Your task to perform on an android device: check google app version Image 0: 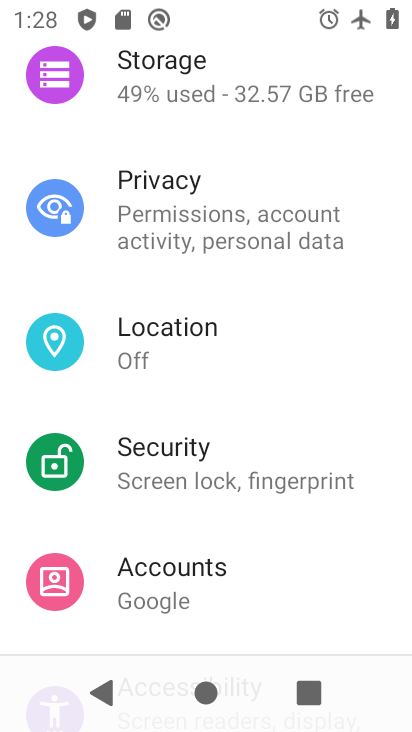
Step 0: press home button
Your task to perform on an android device: check google app version Image 1: 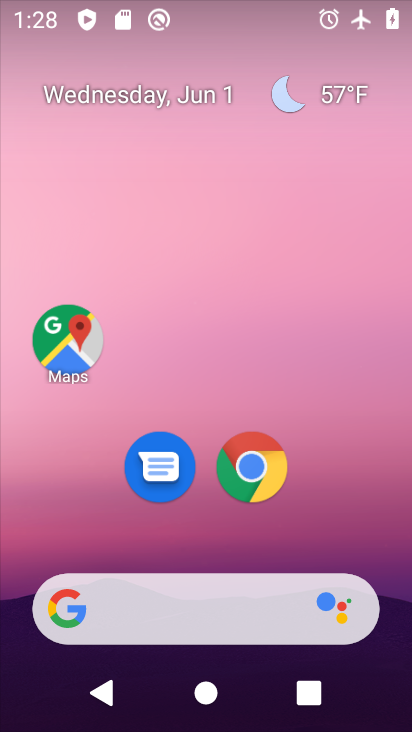
Step 1: drag from (376, 523) to (386, 137)
Your task to perform on an android device: check google app version Image 2: 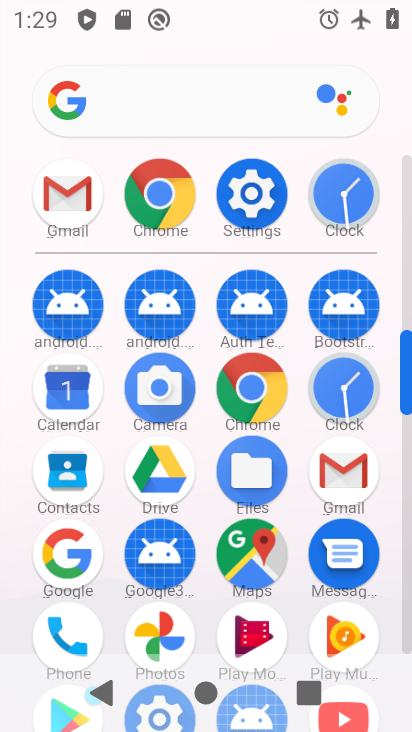
Step 2: click (65, 568)
Your task to perform on an android device: check google app version Image 3: 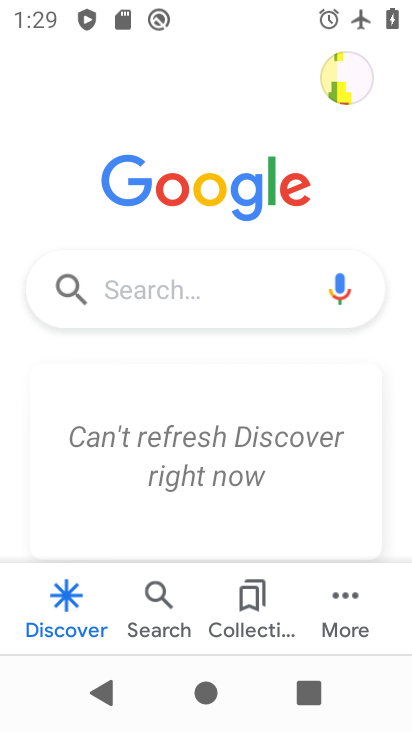
Step 3: click (336, 613)
Your task to perform on an android device: check google app version Image 4: 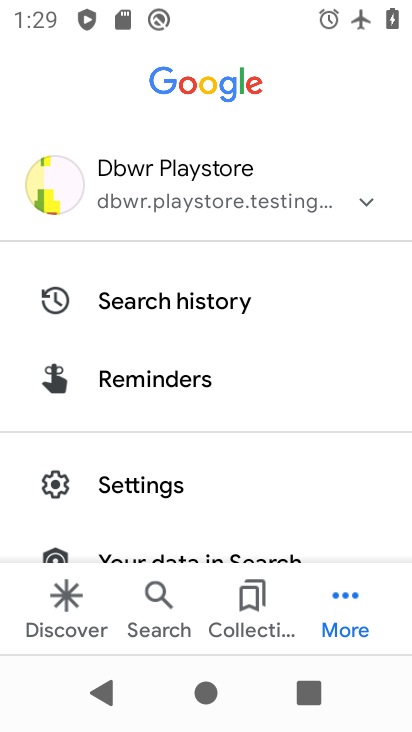
Step 4: drag from (311, 453) to (317, 239)
Your task to perform on an android device: check google app version Image 5: 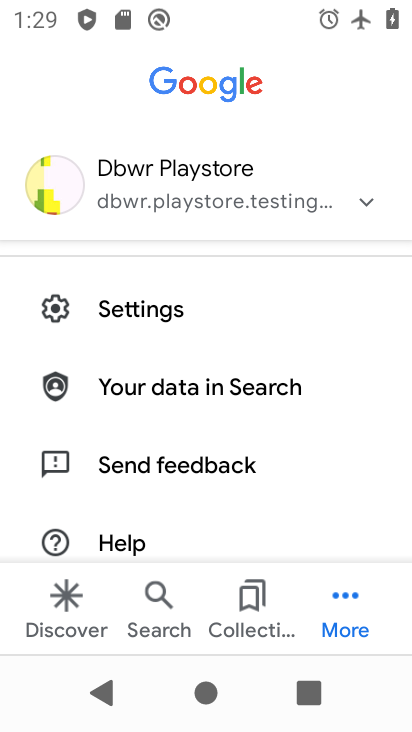
Step 5: click (180, 319)
Your task to perform on an android device: check google app version Image 6: 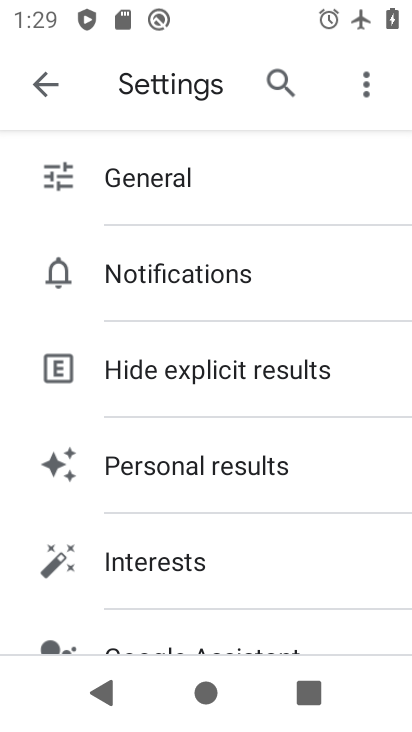
Step 6: drag from (346, 494) to (350, 323)
Your task to perform on an android device: check google app version Image 7: 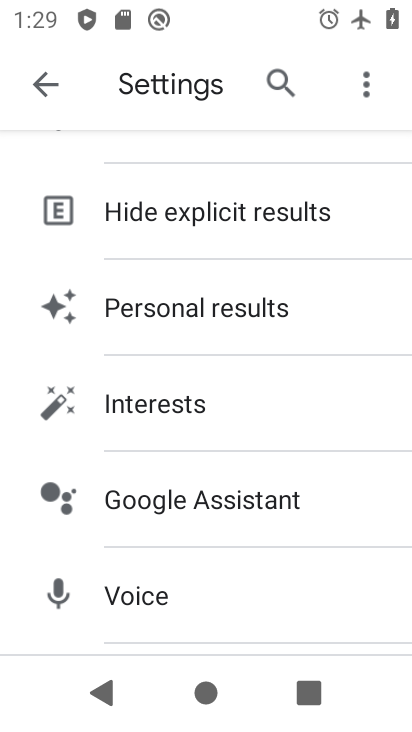
Step 7: drag from (337, 526) to (352, 299)
Your task to perform on an android device: check google app version Image 8: 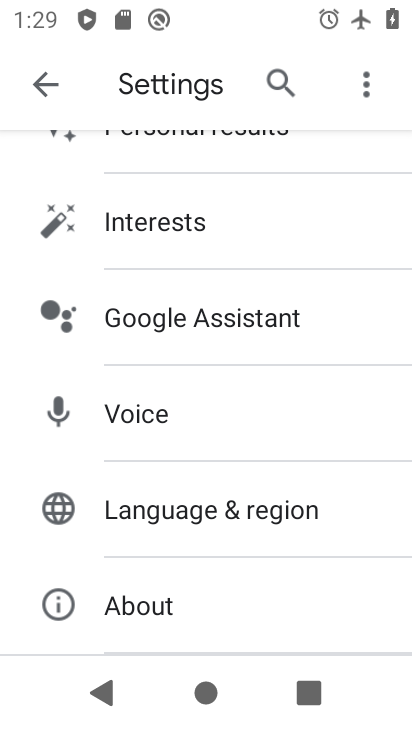
Step 8: click (267, 607)
Your task to perform on an android device: check google app version Image 9: 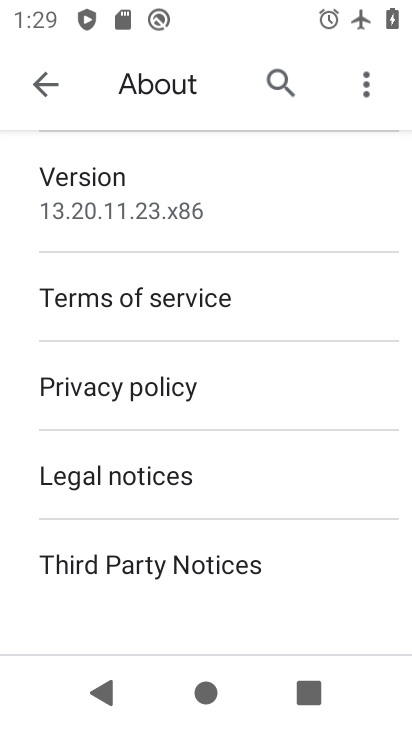
Step 9: task complete